Your task to perform on an android device: What is the news today? Image 0: 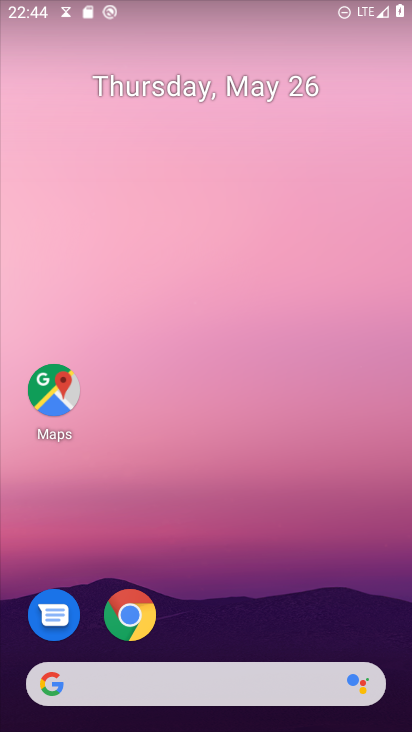
Step 0: click (136, 608)
Your task to perform on an android device: What is the news today? Image 1: 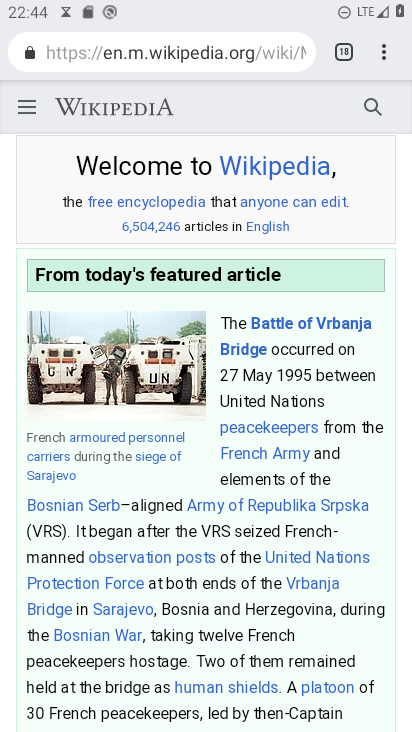
Step 1: click (383, 45)
Your task to perform on an android device: What is the news today? Image 2: 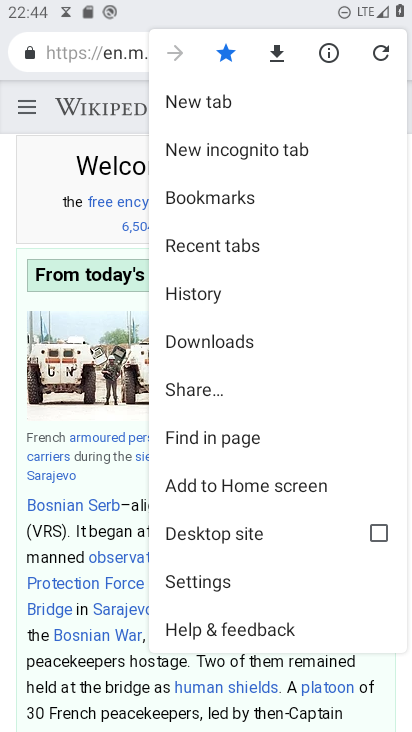
Step 2: click (181, 97)
Your task to perform on an android device: What is the news today? Image 3: 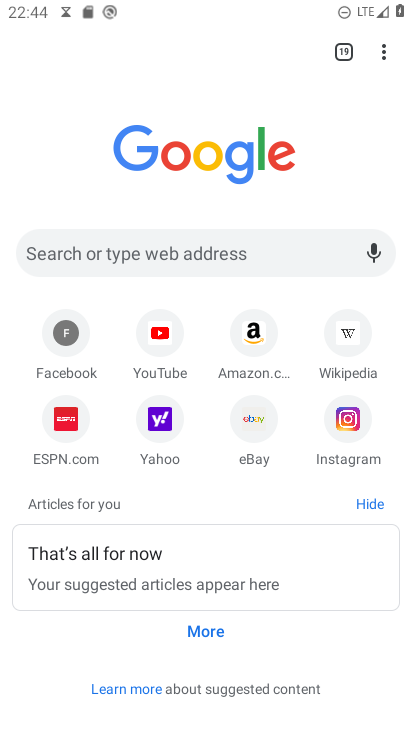
Step 3: click (205, 247)
Your task to perform on an android device: What is the news today? Image 4: 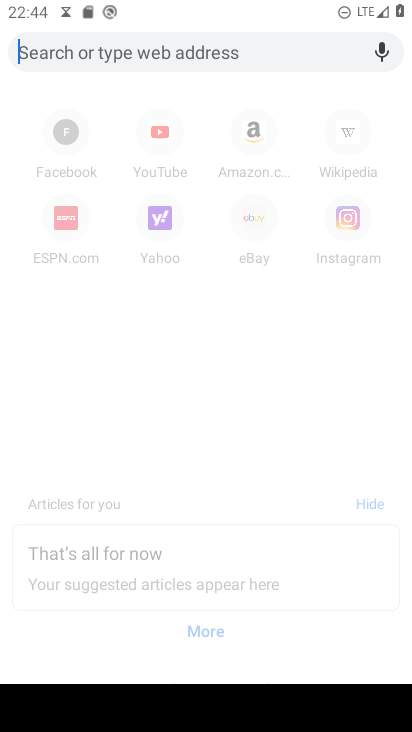
Step 4: type "What is the news today?"
Your task to perform on an android device: What is the news today? Image 5: 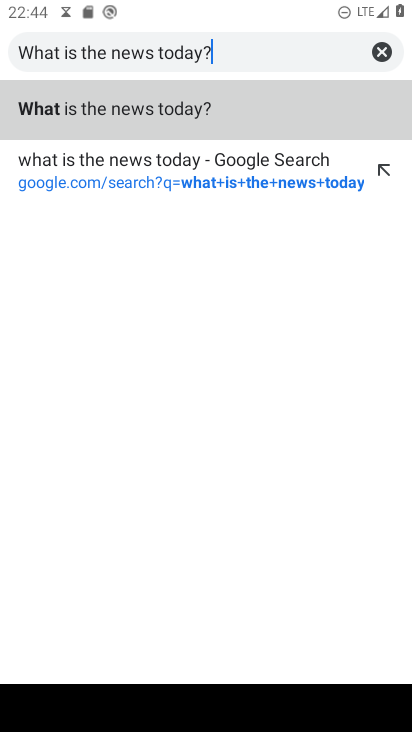
Step 5: click (121, 110)
Your task to perform on an android device: What is the news today? Image 6: 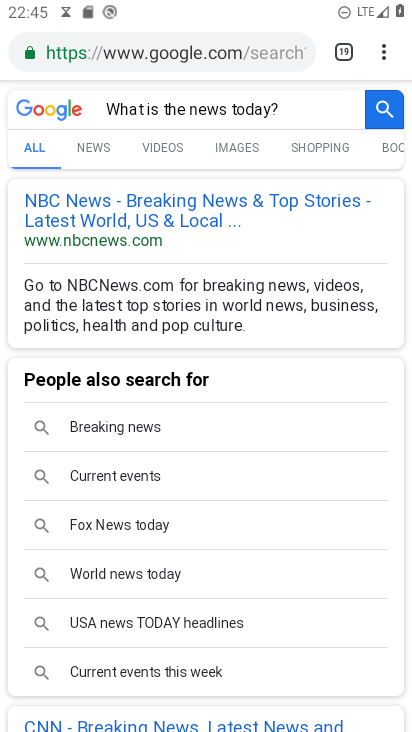
Step 6: task complete